Your task to perform on an android device: Open Chrome and go to the settings page Image 0: 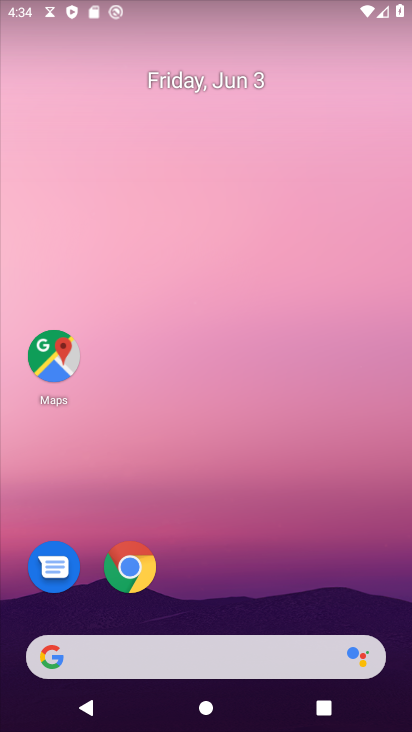
Step 0: click (130, 566)
Your task to perform on an android device: Open Chrome and go to the settings page Image 1: 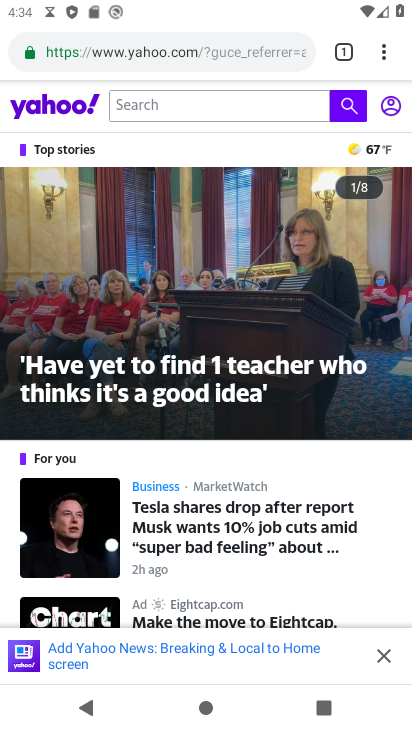
Step 1: click (384, 48)
Your task to perform on an android device: Open Chrome and go to the settings page Image 2: 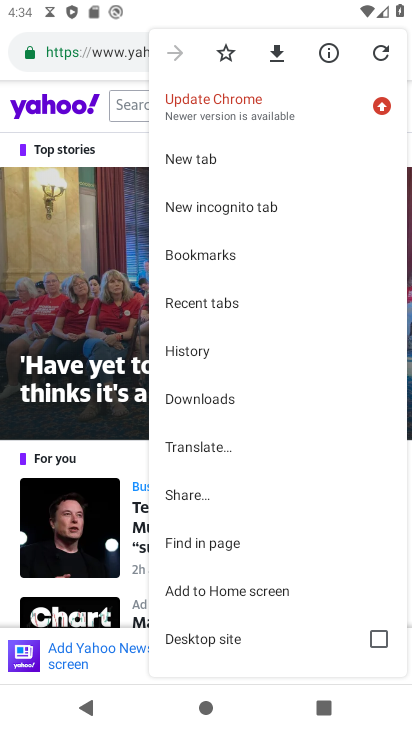
Step 2: drag from (249, 483) to (303, 317)
Your task to perform on an android device: Open Chrome and go to the settings page Image 3: 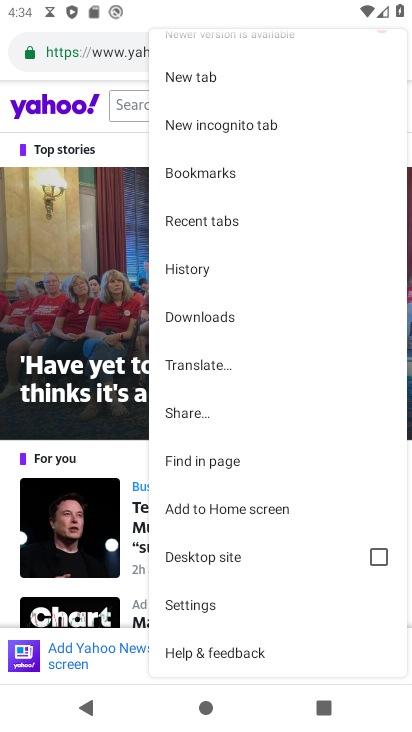
Step 3: click (218, 597)
Your task to perform on an android device: Open Chrome and go to the settings page Image 4: 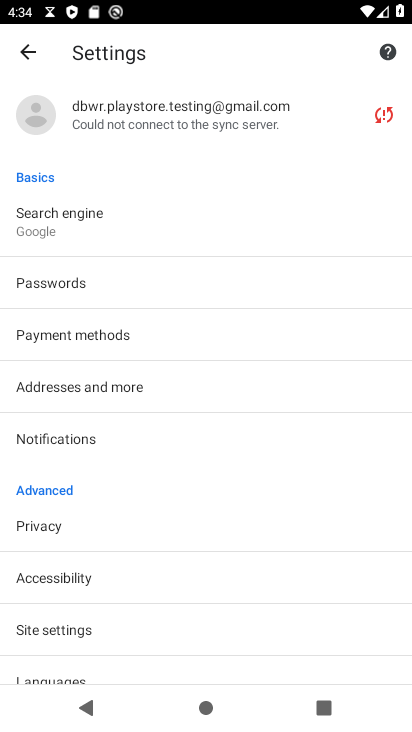
Step 4: task complete